Your task to perform on an android device: Open the calendar and show me this week's events? Image 0: 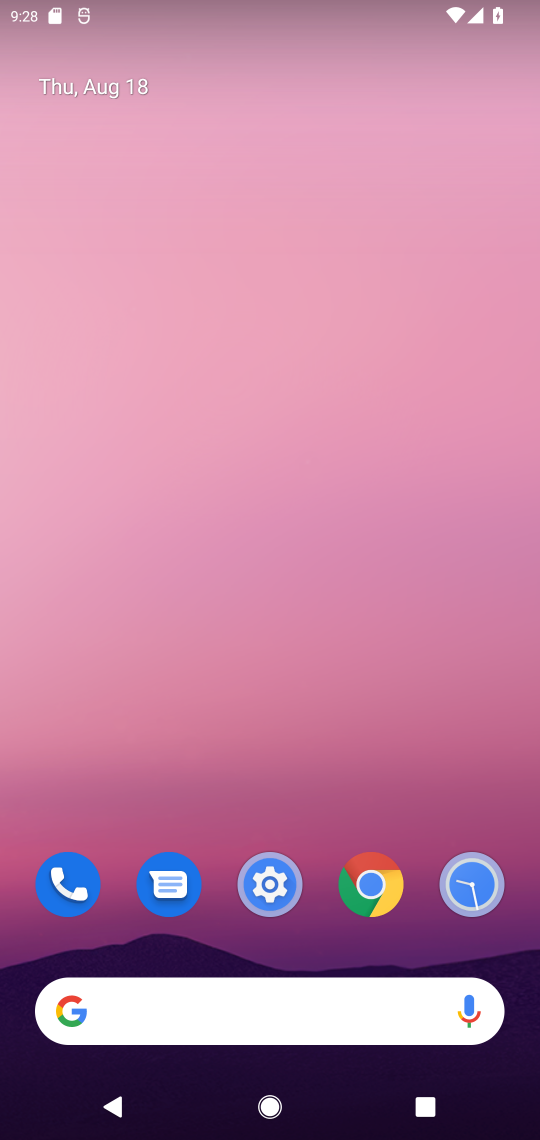
Step 0: click (95, 92)
Your task to perform on an android device: Open the calendar and show me this week's events? Image 1: 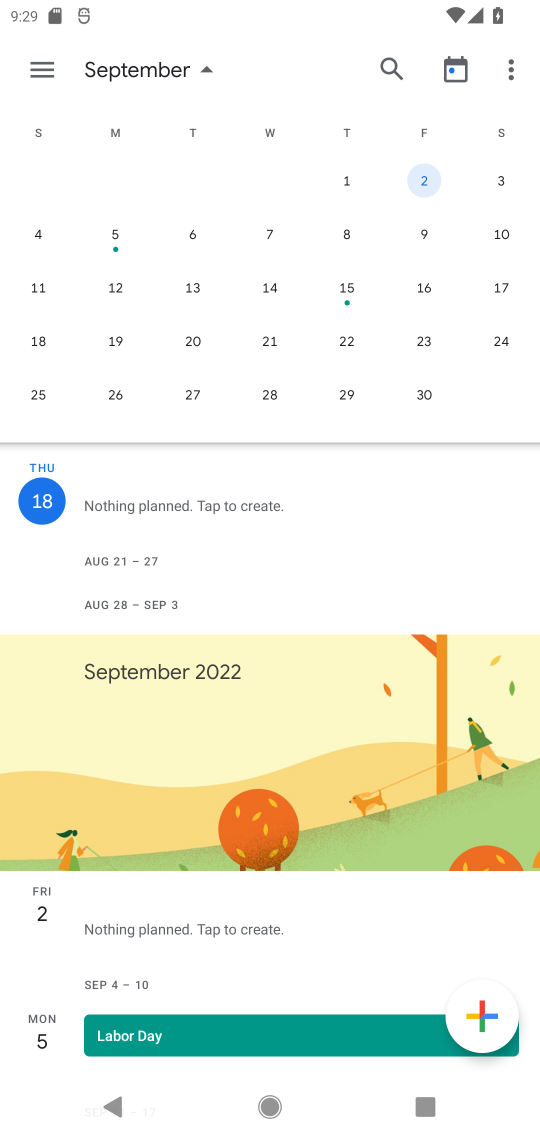
Step 1: click (45, 62)
Your task to perform on an android device: Open the calendar and show me this week's events? Image 2: 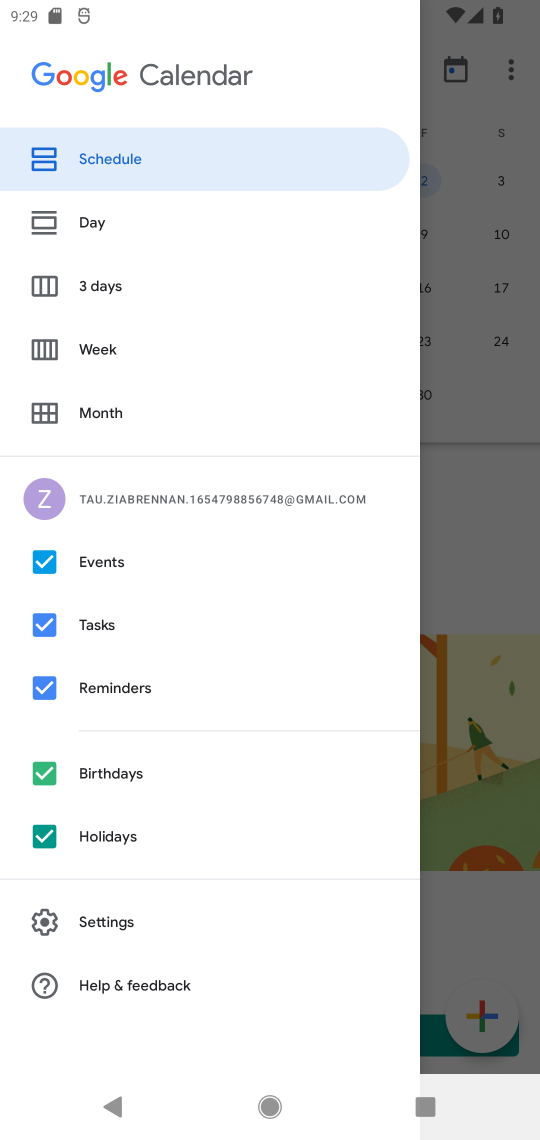
Step 2: click (125, 358)
Your task to perform on an android device: Open the calendar and show me this week's events? Image 3: 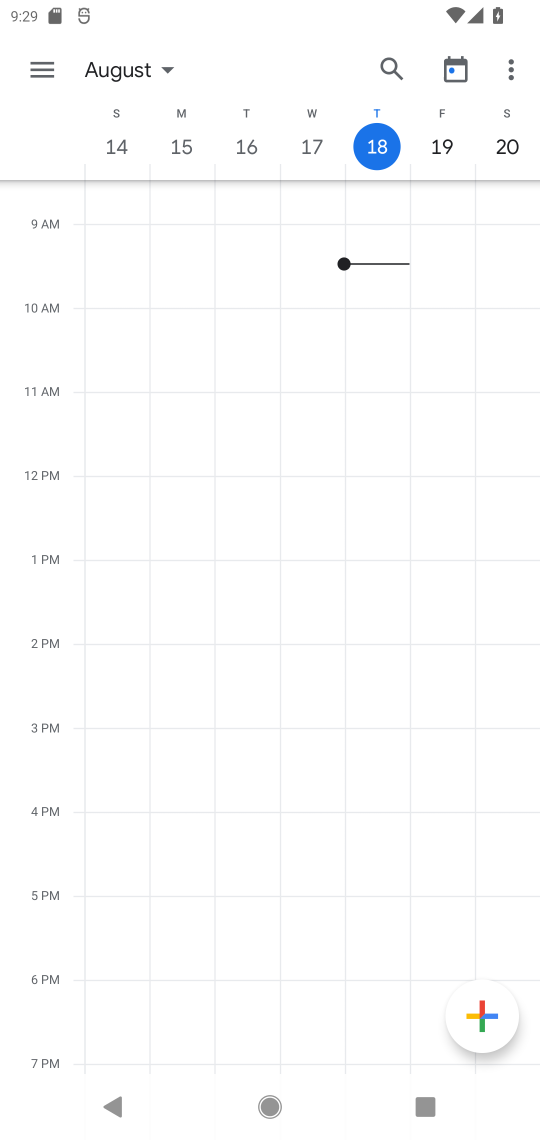
Step 3: click (38, 75)
Your task to perform on an android device: Open the calendar and show me this week's events? Image 4: 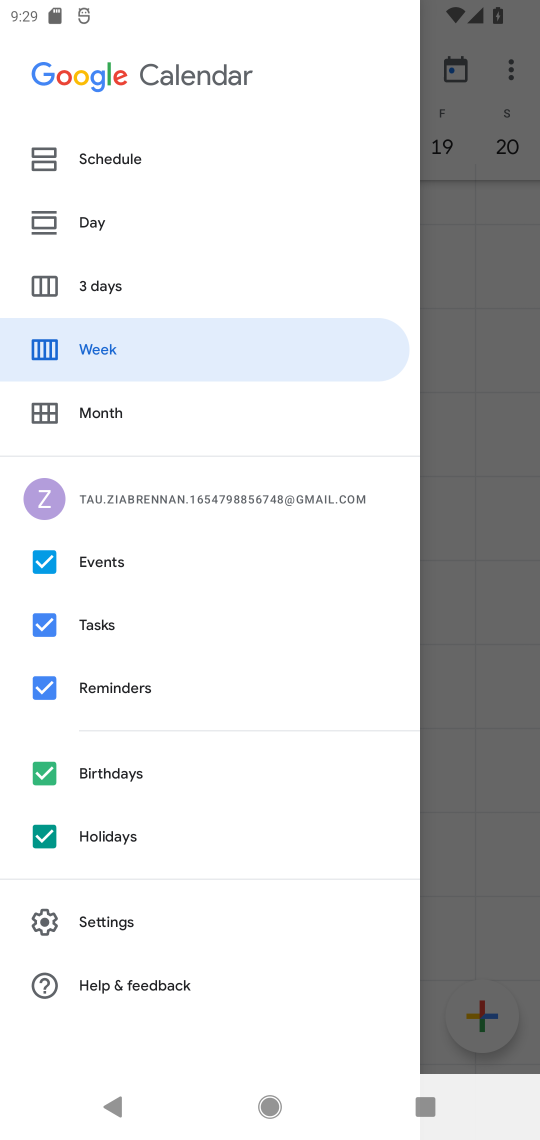
Step 4: click (41, 626)
Your task to perform on an android device: Open the calendar and show me this week's events? Image 5: 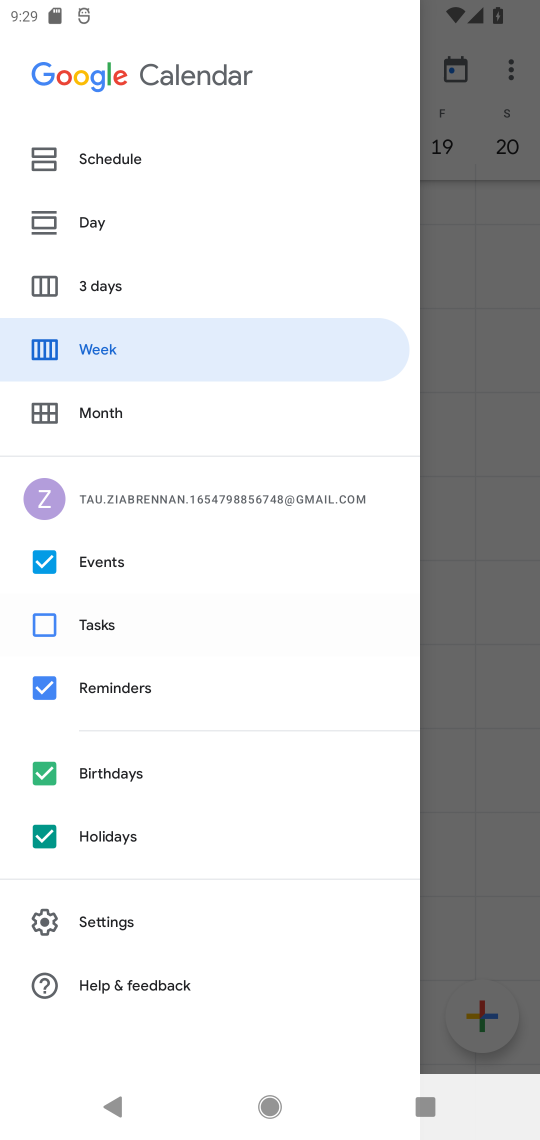
Step 5: click (50, 688)
Your task to perform on an android device: Open the calendar and show me this week's events? Image 6: 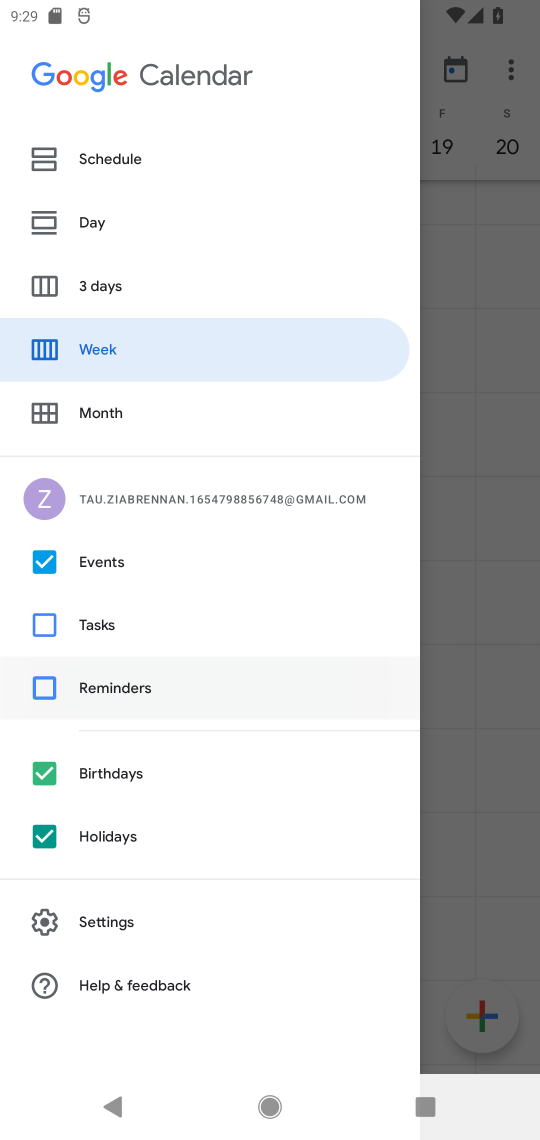
Step 6: click (44, 772)
Your task to perform on an android device: Open the calendar and show me this week's events? Image 7: 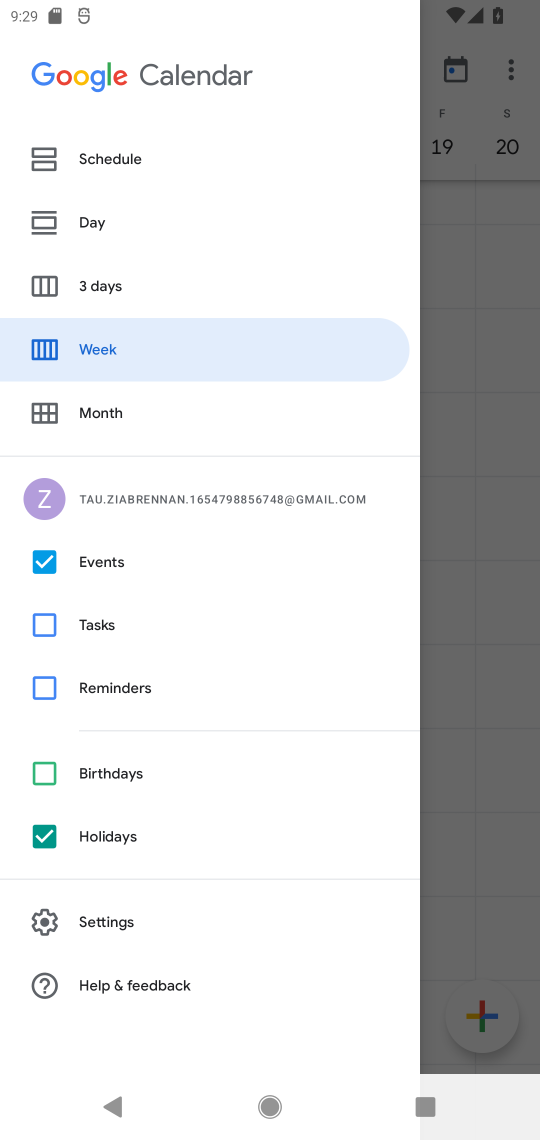
Step 7: click (38, 845)
Your task to perform on an android device: Open the calendar and show me this week's events? Image 8: 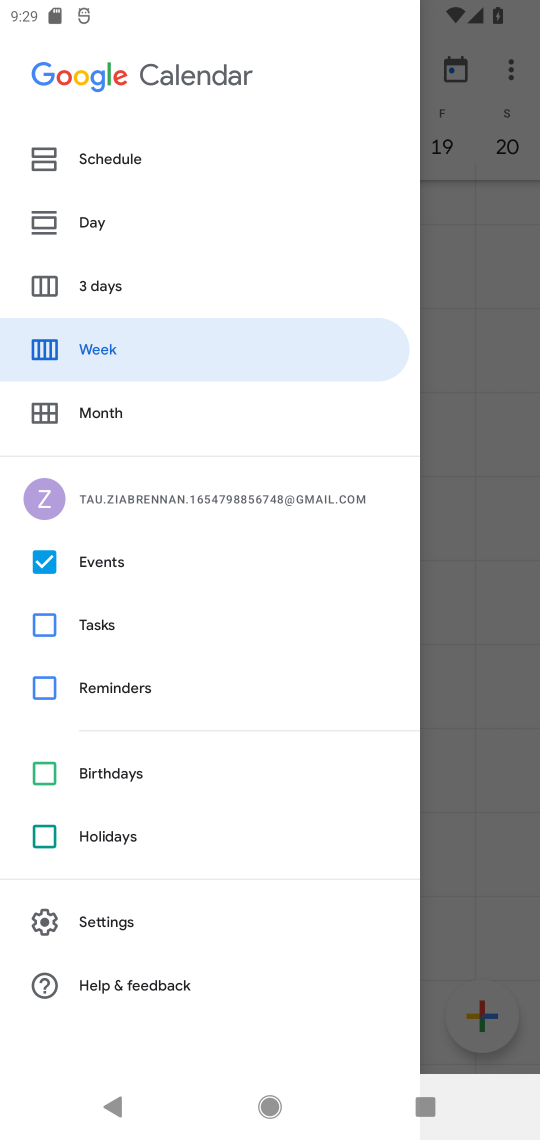
Step 8: click (513, 592)
Your task to perform on an android device: Open the calendar and show me this week's events? Image 9: 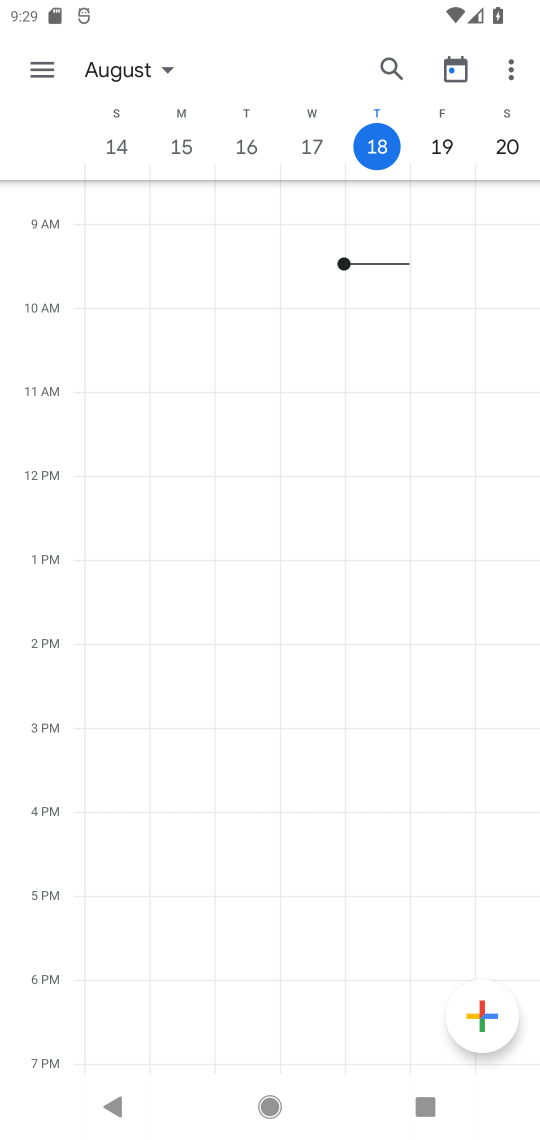
Step 9: task complete